Your task to perform on an android device: turn on the 12-hour format for clock Image 0: 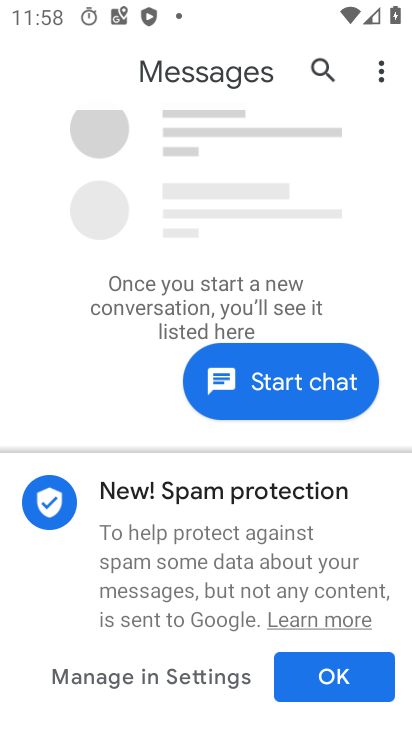
Step 0: press home button
Your task to perform on an android device: turn on the 12-hour format for clock Image 1: 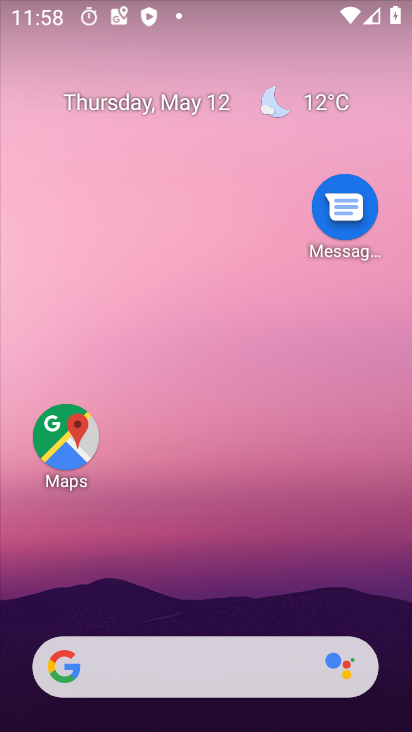
Step 1: drag from (256, 439) to (268, 113)
Your task to perform on an android device: turn on the 12-hour format for clock Image 2: 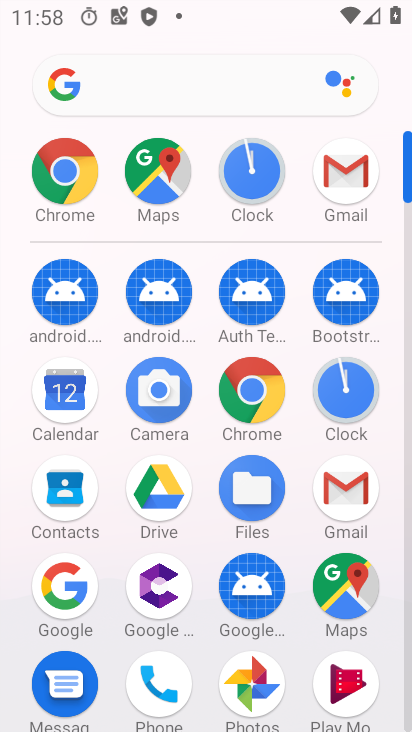
Step 2: click (251, 174)
Your task to perform on an android device: turn on the 12-hour format for clock Image 3: 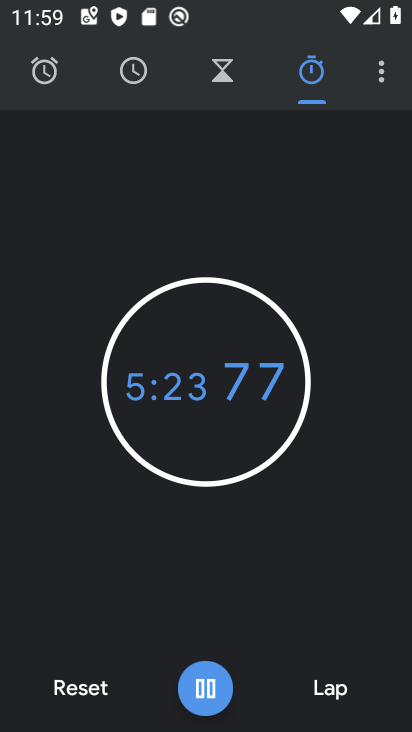
Step 3: click (375, 82)
Your task to perform on an android device: turn on the 12-hour format for clock Image 4: 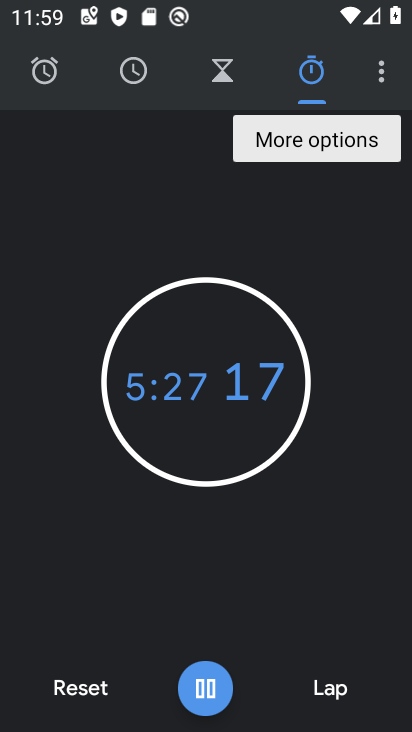
Step 4: click (375, 82)
Your task to perform on an android device: turn on the 12-hour format for clock Image 5: 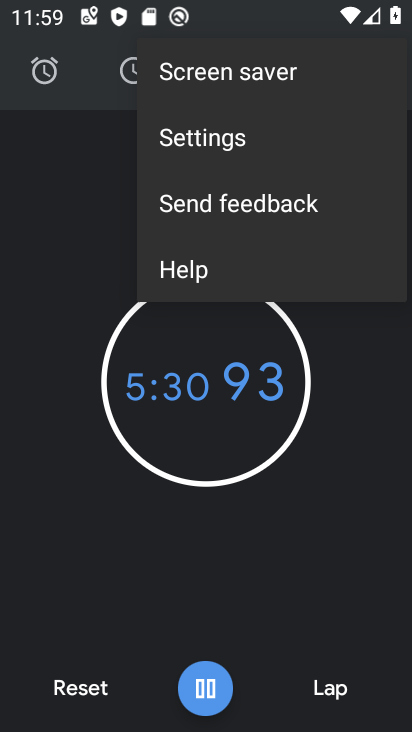
Step 5: click (258, 137)
Your task to perform on an android device: turn on the 12-hour format for clock Image 6: 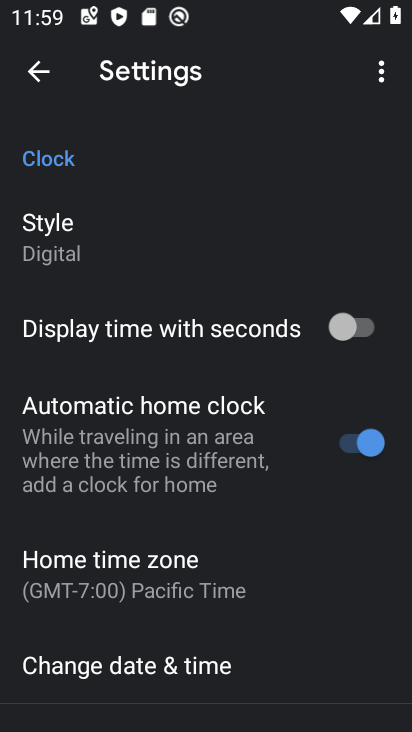
Step 6: click (147, 674)
Your task to perform on an android device: turn on the 12-hour format for clock Image 7: 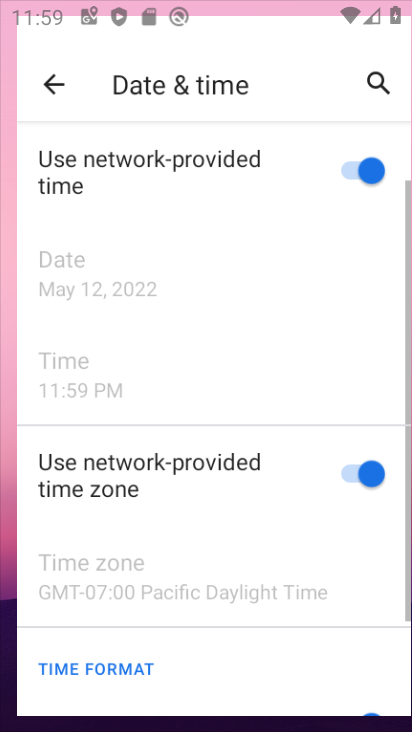
Step 7: drag from (130, 659) to (261, 4)
Your task to perform on an android device: turn on the 12-hour format for clock Image 8: 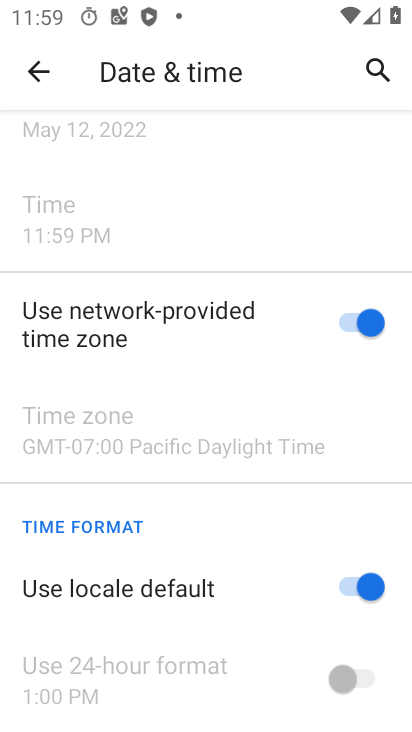
Step 8: click (367, 570)
Your task to perform on an android device: turn on the 12-hour format for clock Image 9: 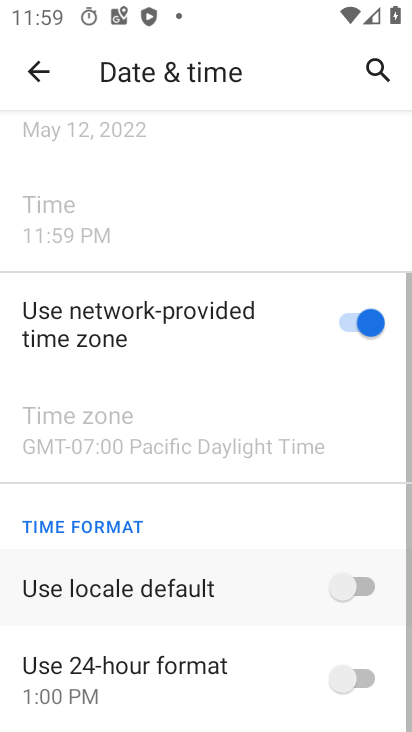
Step 9: click (359, 686)
Your task to perform on an android device: turn on the 12-hour format for clock Image 10: 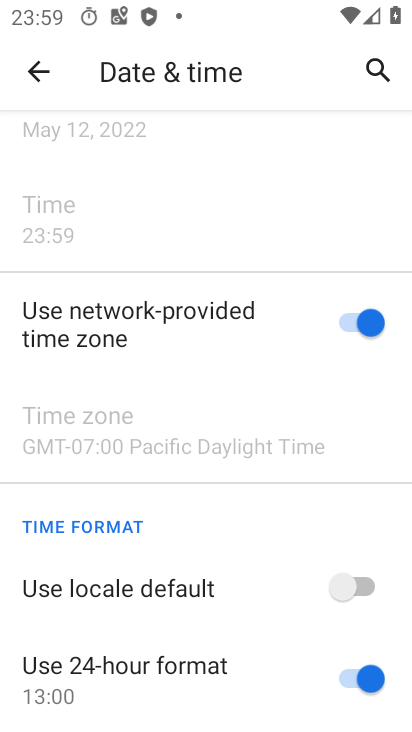
Step 10: task complete